Your task to perform on an android device: turn on data saver in the chrome app Image 0: 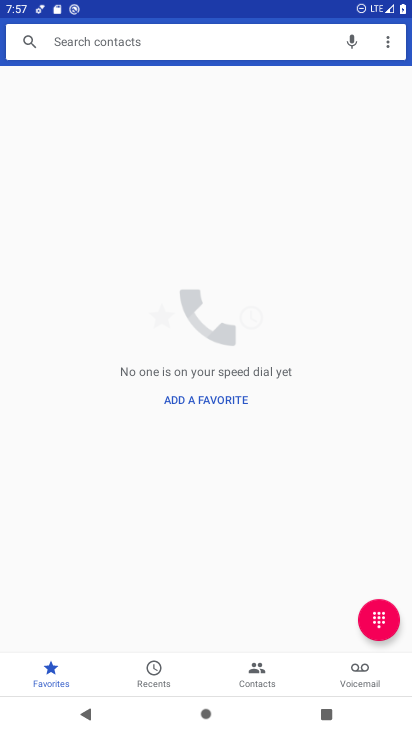
Step 0: press home button
Your task to perform on an android device: turn on data saver in the chrome app Image 1: 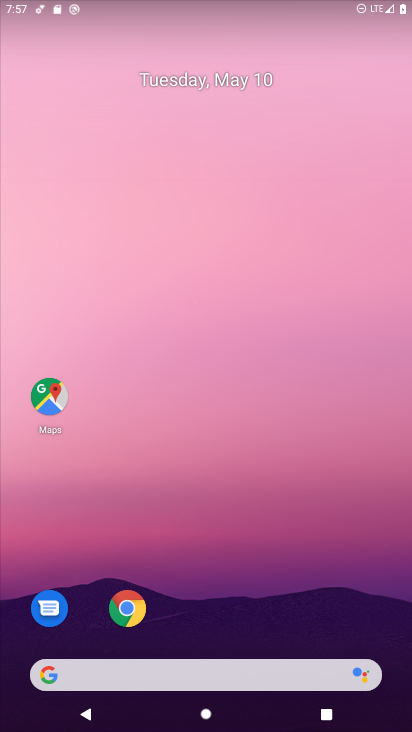
Step 1: drag from (211, 591) to (252, 225)
Your task to perform on an android device: turn on data saver in the chrome app Image 2: 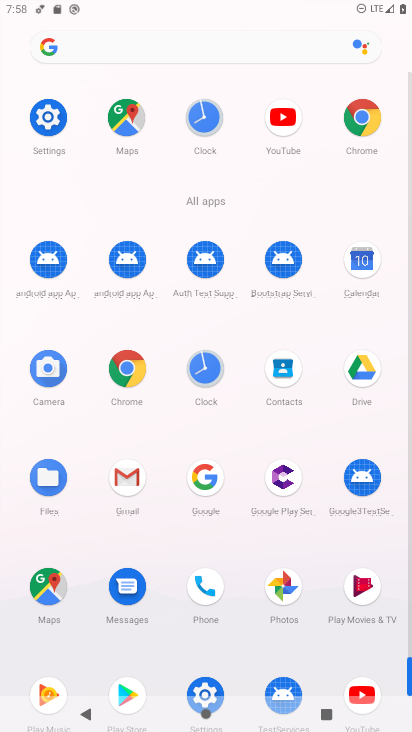
Step 2: click (360, 115)
Your task to perform on an android device: turn on data saver in the chrome app Image 3: 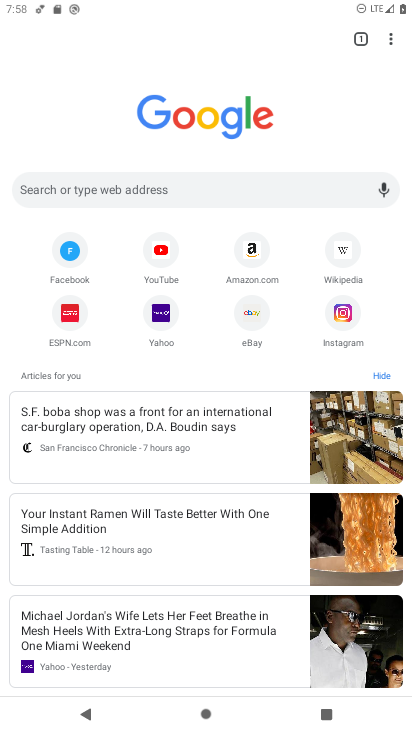
Step 3: click (388, 37)
Your task to perform on an android device: turn on data saver in the chrome app Image 4: 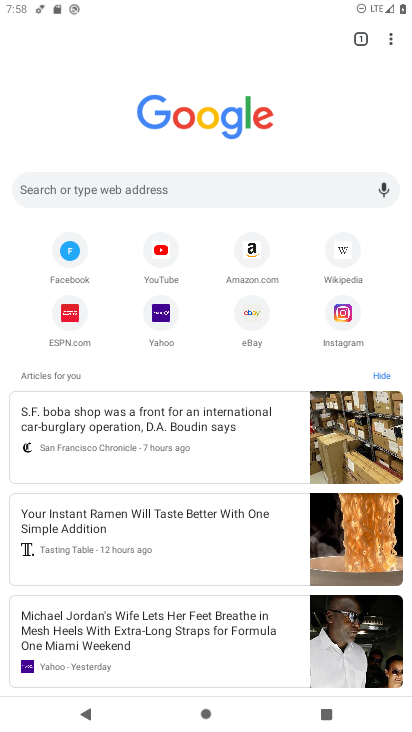
Step 4: click (380, 33)
Your task to perform on an android device: turn on data saver in the chrome app Image 5: 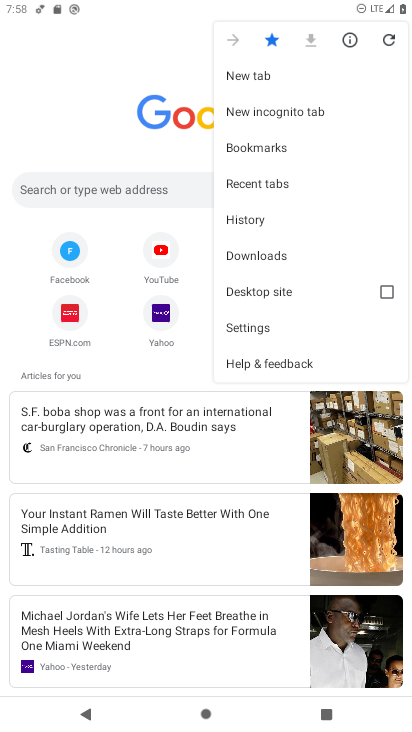
Step 5: click (267, 326)
Your task to perform on an android device: turn on data saver in the chrome app Image 6: 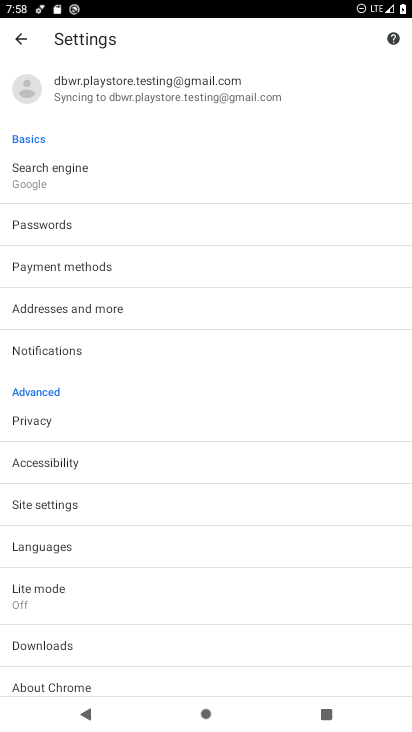
Step 6: click (72, 602)
Your task to perform on an android device: turn on data saver in the chrome app Image 7: 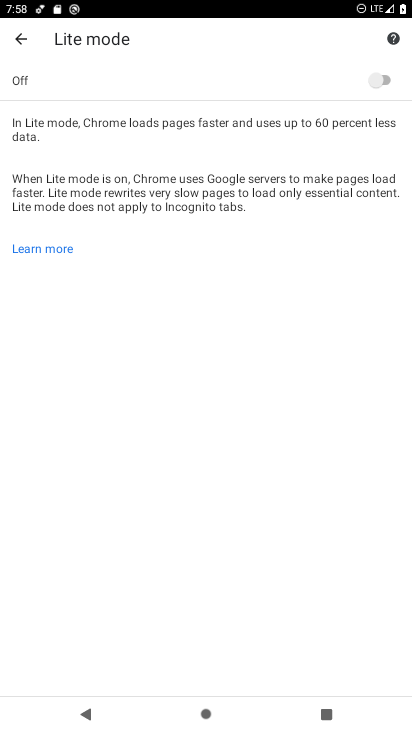
Step 7: click (383, 79)
Your task to perform on an android device: turn on data saver in the chrome app Image 8: 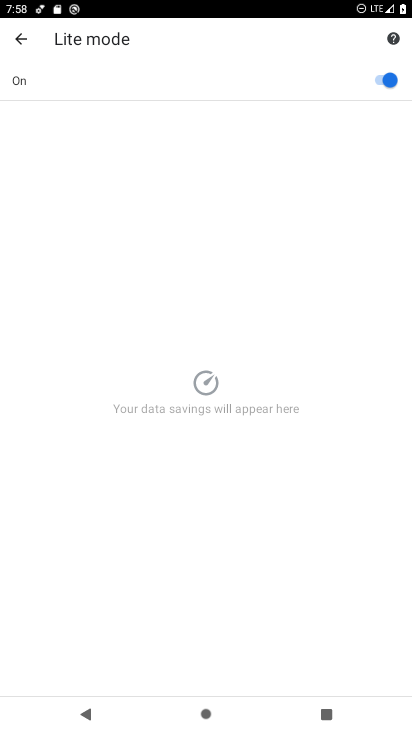
Step 8: task complete